Your task to perform on an android device: Open network settings Image 0: 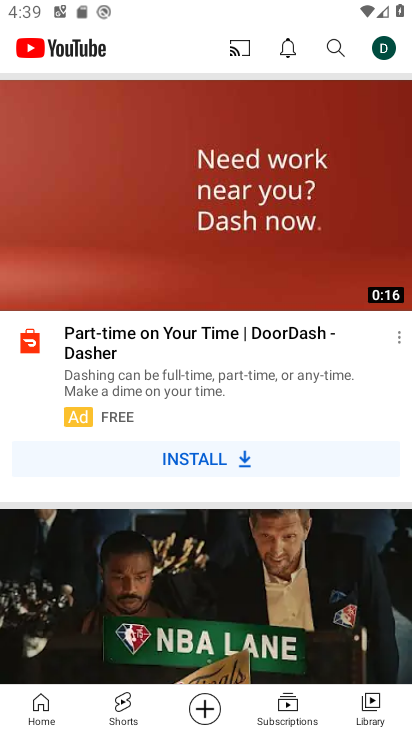
Step 0: press home button
Your task to perform on an android device: Open network settings Image 1: 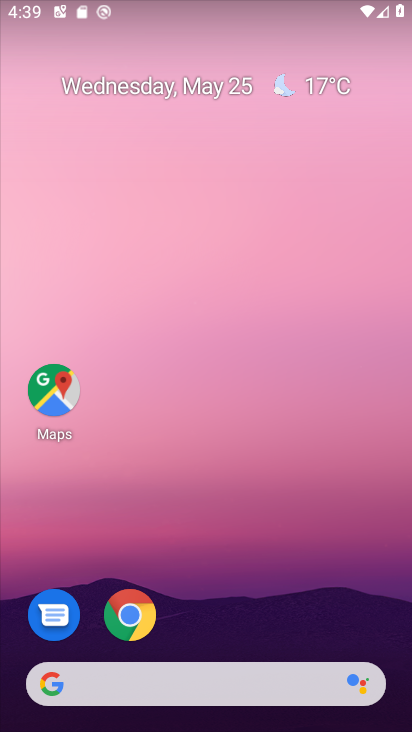
Step 1: drag from (265, 543) to (175, 106)
Your task to perform on an android device: Open network settings Image 2: 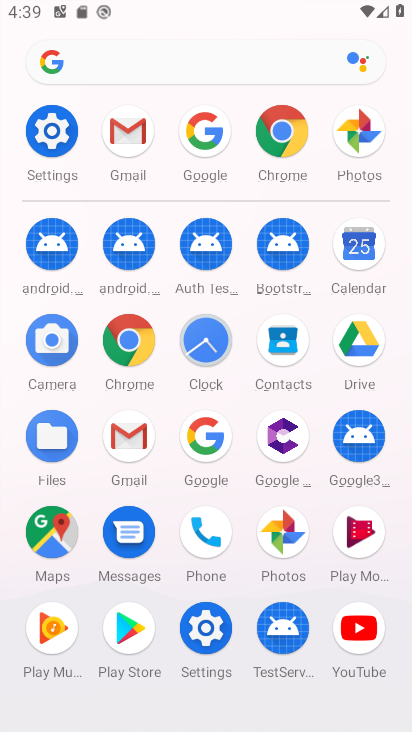
Step 2: click (49, 97)
Your task to perform on an android device: Open network settings Image 3: 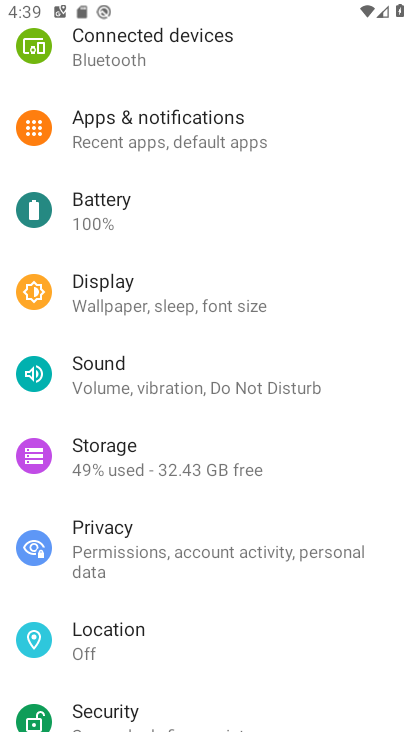
Step 3: drag from (242, 186) to (190, 713)
Your task to perform on an android device: Open network settings Image 4: 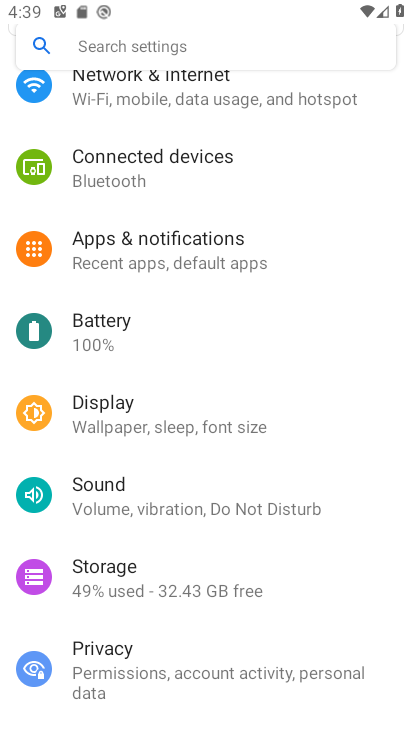
Step 4: click (247, 93)
Your task to perform on an android device: Open network settings Image 5: 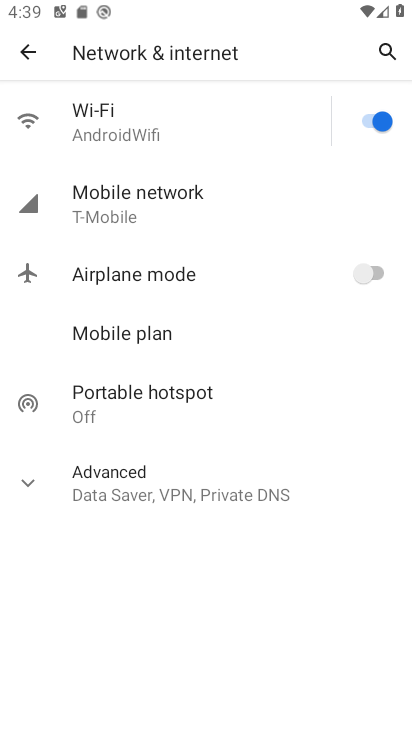
Step 5: task complete